Your task to perform on an android device: Open Chrome and go to the settings page Image 0: 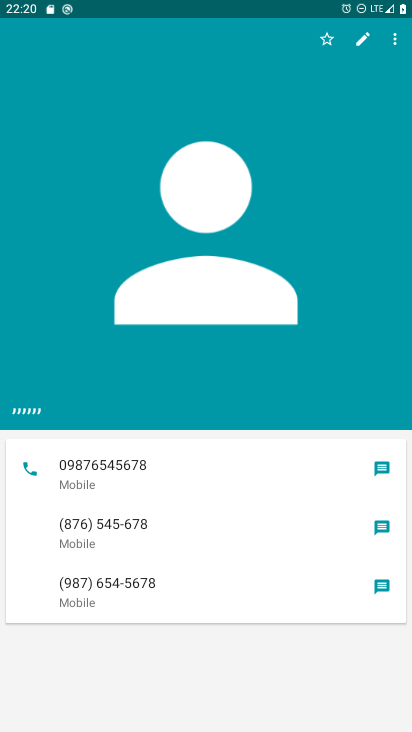
Step 0: press home button
Your task to perform on an android device: Open Chrome and go to the settings page Image 1: 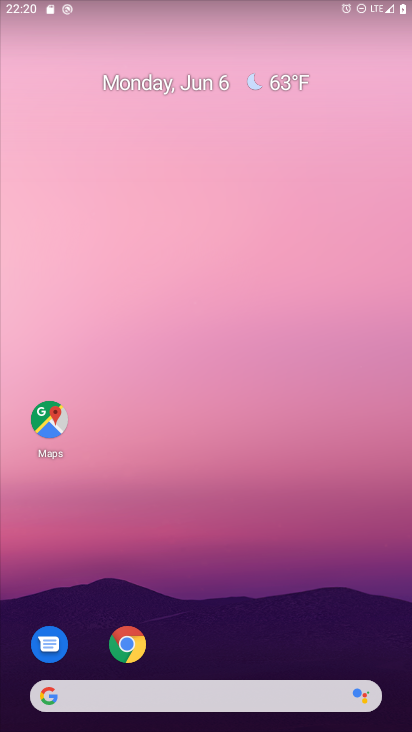
Step 1: drag from (214, 725) to (160, 203)
Your task to perform on an android device: Open Chrome and go to the settings page Image 2: 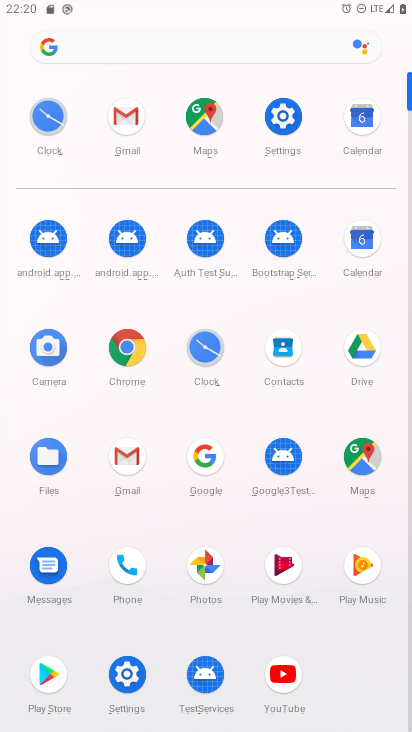
Step 2: click (111, 343)
Your task to perform on an android device: Open Chrome and go to the settings page Image 3: 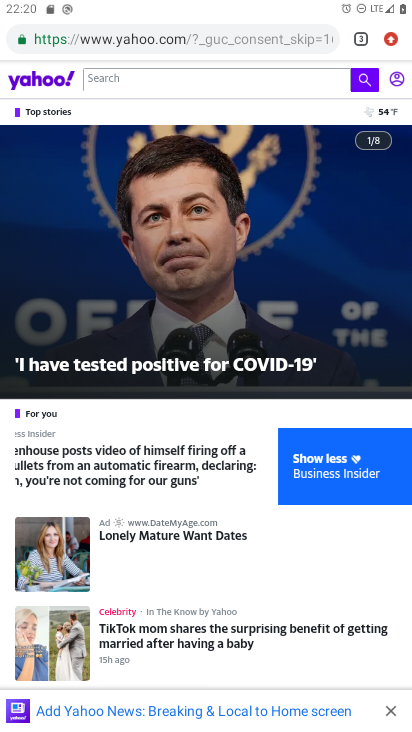
Step 3: click (389, 41)
Your task to perform on an android device: Open Chrome and go to the settings page Image 4: 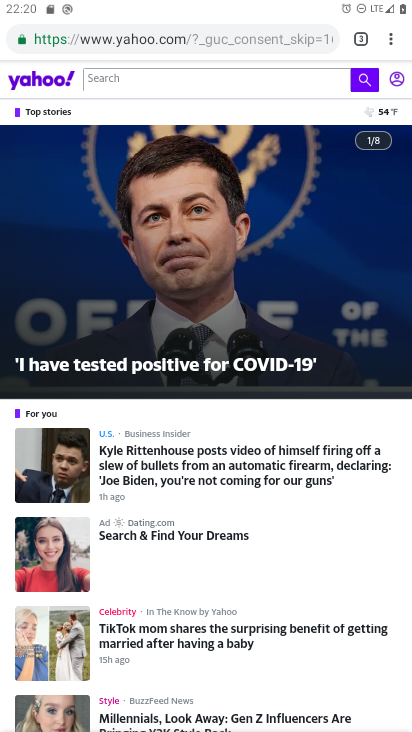
Step 4: click (390, 33)
Your task to perform on an android device: Open Chrome and go to the settings page Image 5: 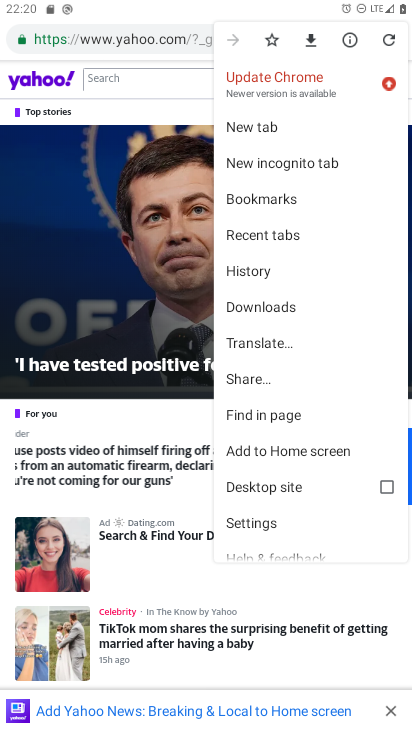
Step 5: click (247, 525)
Your task to perform on an android device: Open Chrome and go to the settings page Image 6: 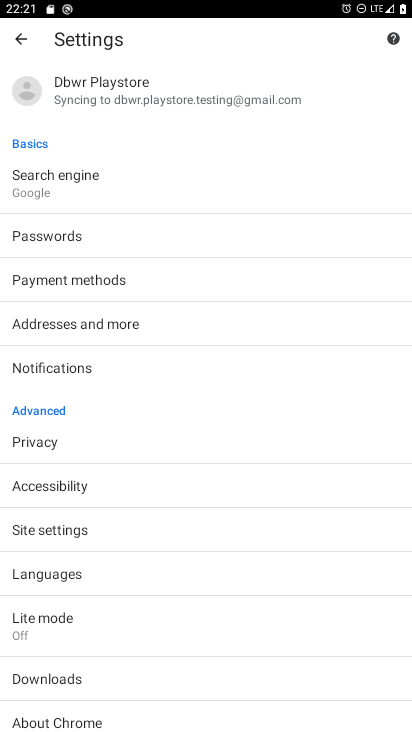
Step 6: task complete